Your task to perform on an android device: Search for sushi restaurants on Maps Image 0: 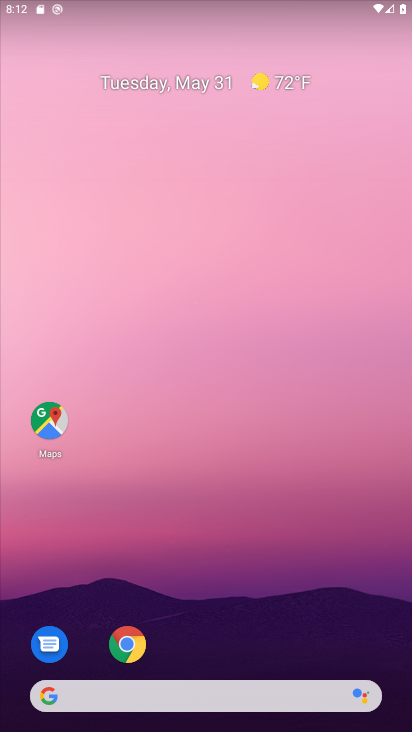
Step 0: press home button
Your task to perform on an android device: Search for sushi restaurants on Maps Image 1: 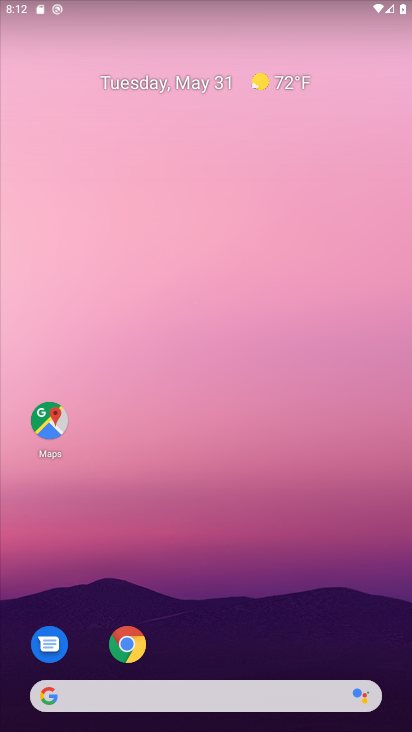
Step 1: click (46, 417)
Your task to perform on an android device: Search for sushi restaurants on Maps Image 2: 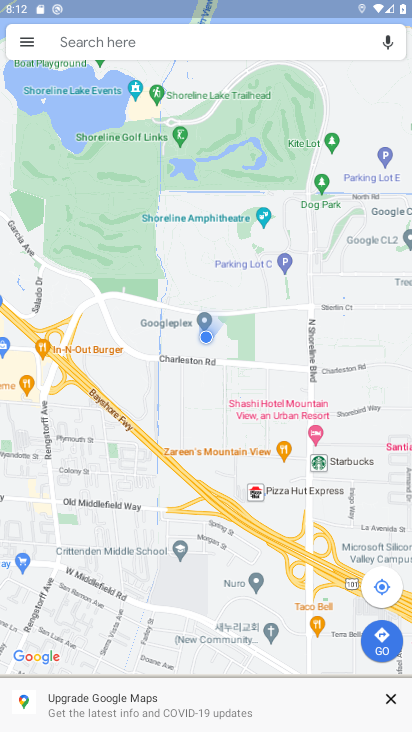
Step 2: click (102, 37)
Your task to perform on an android device: Search for sushi restaurants on Maps Image 3: 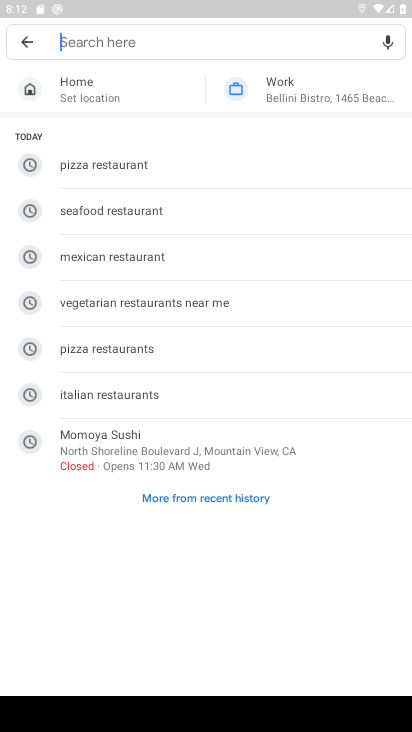
Step 3: type "sushi"
Your task to perform on an android device: Search for sushi restaurants on Maps Image 4: 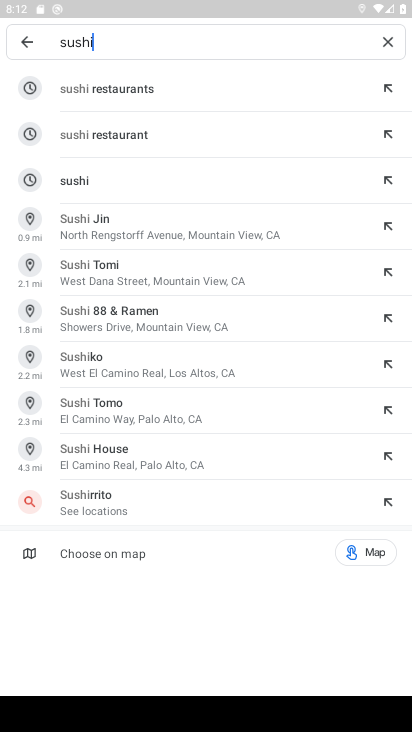
Step 4: click (169, 82)
Your task to perform on an android device: Search for sushi restaurants on Maps Image 5: 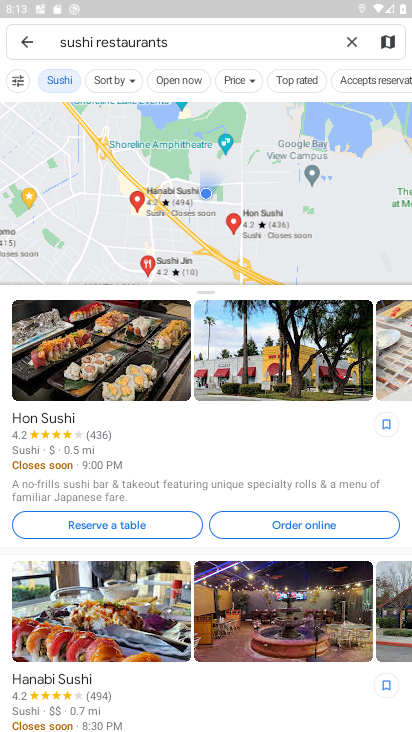
Step 5: task complete